Your task to perform on an android device: toggle data saver in the chrome app Image 0: 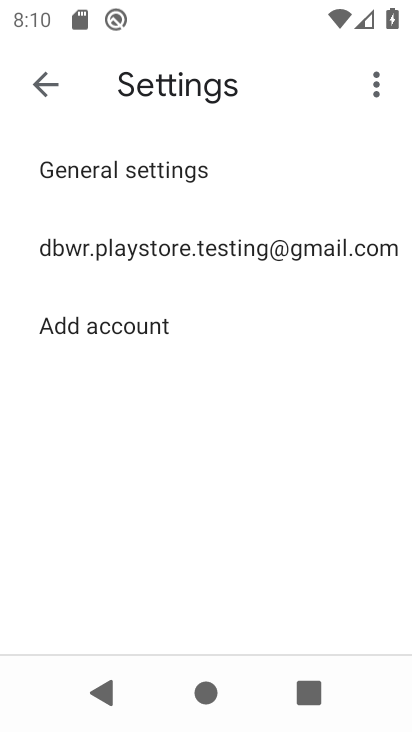
Step 0: press home button
Your task to perform on an android device: toggle data saver in the chrome app Image 1: 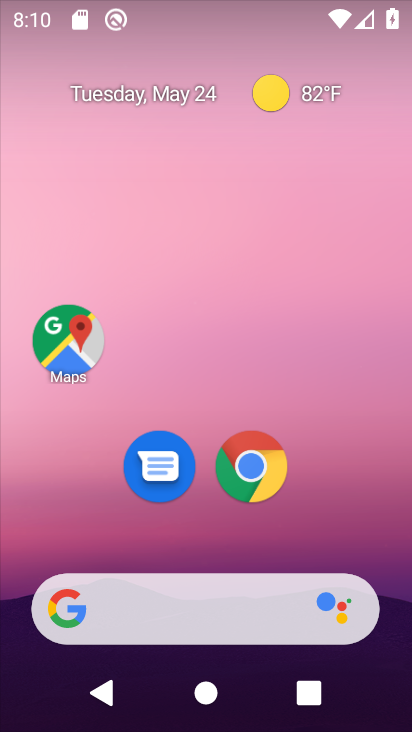
Step 1: drag from (170, 578) to (158, 363)
Your task to perform on an android device: toggle data saver in the chrome app Image 2: 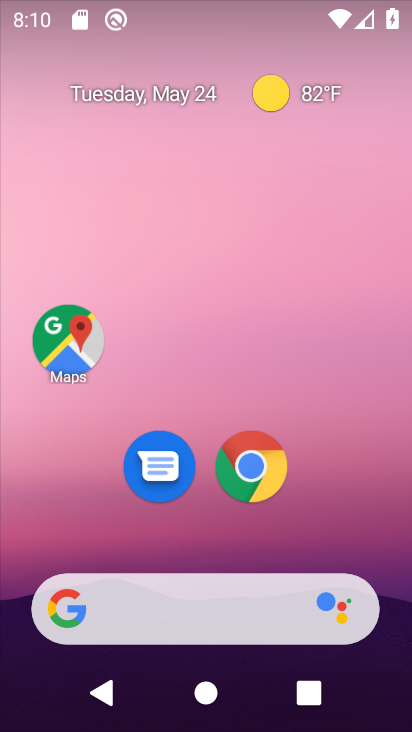
Step 2: click (250, 475)
Your task to perform on an android device: toggle data saver in the chrome app Image 3: 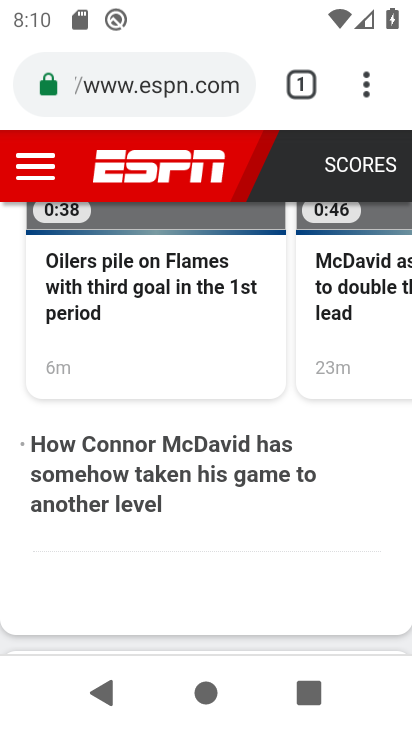
Step 3: click (370, 86)
Your task to perform on an android device: toggle data saver in the chrome app Image 4: 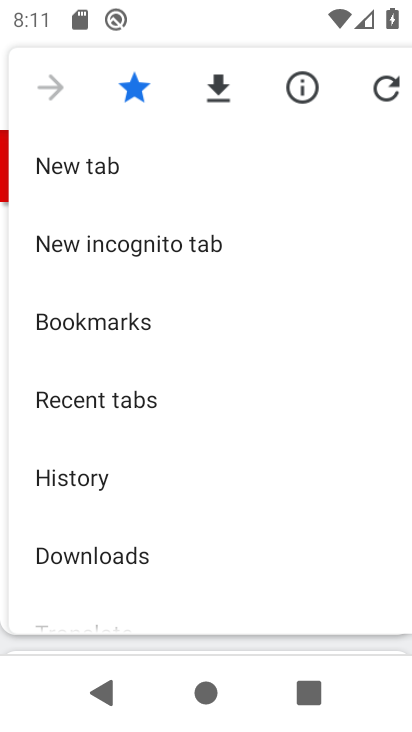
Step 4: drag from (108, 561) to (140, 164)
Your task to perform on an android device: toggle data saver in the chrome app Image 5: 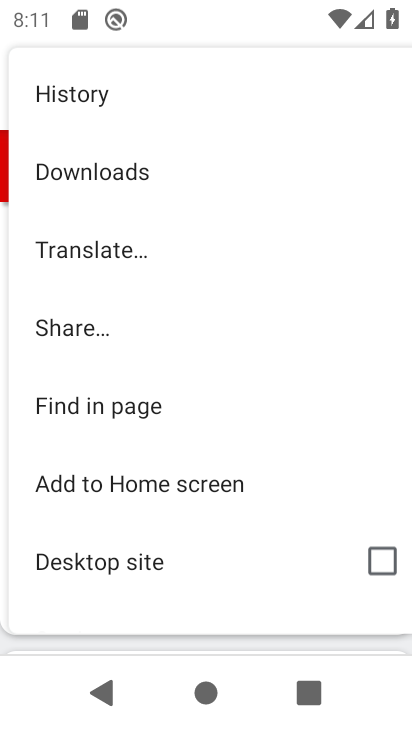
Step 5: drag from (117, 592) to (126, 295)
Your task to perform on an android device: toggle data saver in the chrome app Image 6: 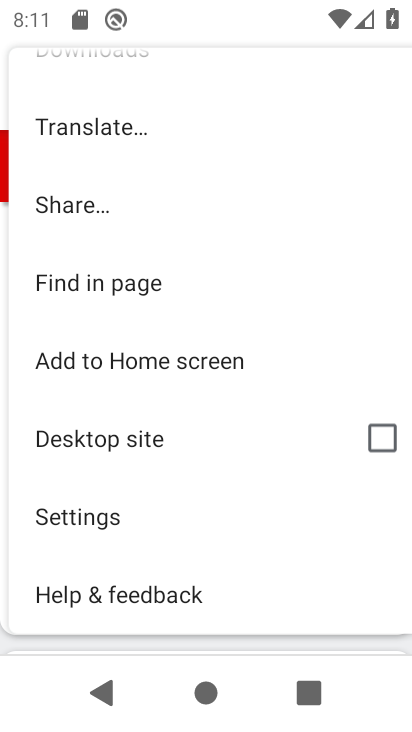
Step 6: click (83, 519)
Your task to perform on an android device: toggle data saver in the chrome app Image 7: 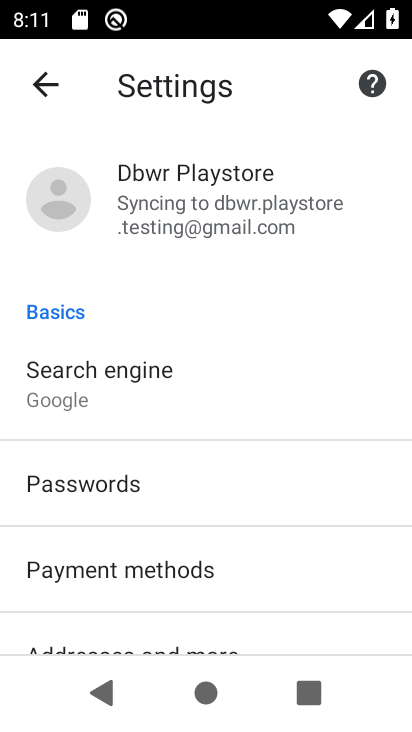
Step 7: drag from (140, 654) to (141, 318)
Your task to perform on an android device: toggle data saver in the chrome app Image 8: 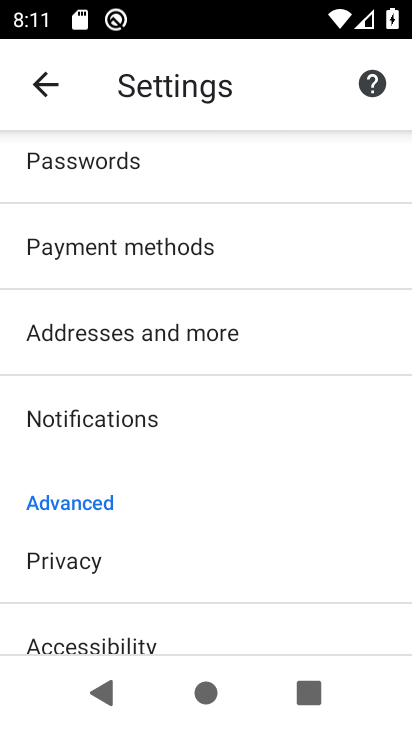
Step 8: drag from (66, 653) to (70, 373)
Your task to perform on an android device: toggle data saver in the chrome app Image 9: 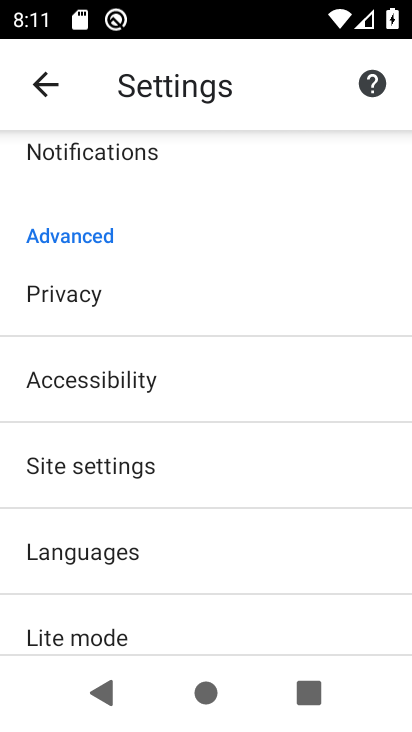
Step 9: click (78, 630)
Your task to perform on an android device: toggle data saver in the chrome app Image 10: 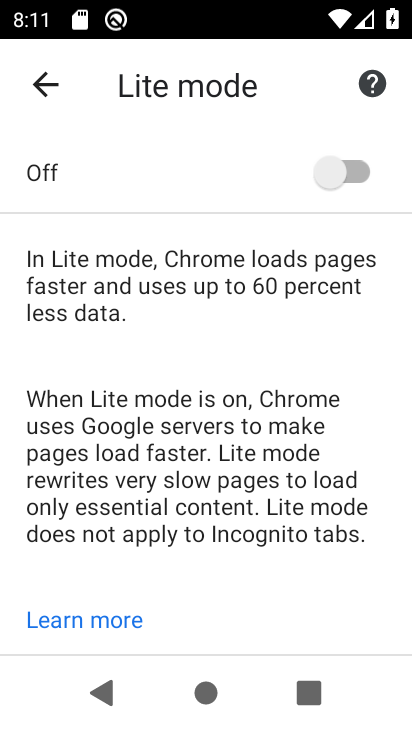
Step 10: click (356, 170)
Your task to perform on an android device: toggle data saver in the chrome app Image 11: 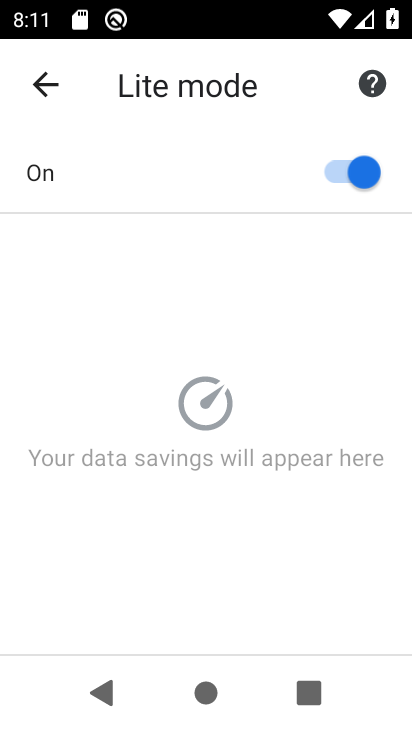
Step 11: task complete